Your task to perform on an android device: Go to Android settings Image 0: 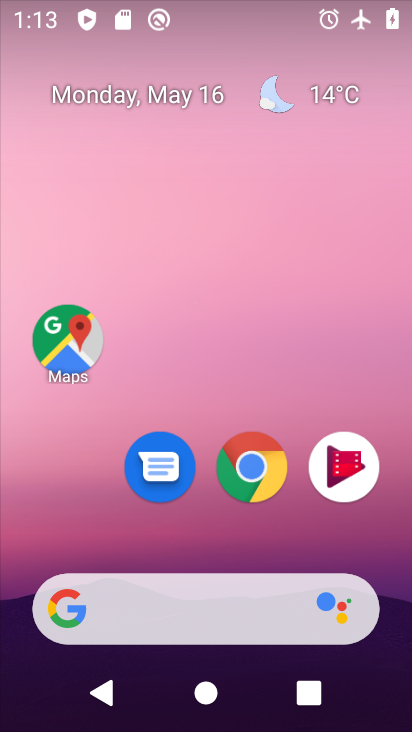
Step 0: drag from (201, 535) to (224, 193)
Your task to perform on an android device: Go to Android settings Image 1: 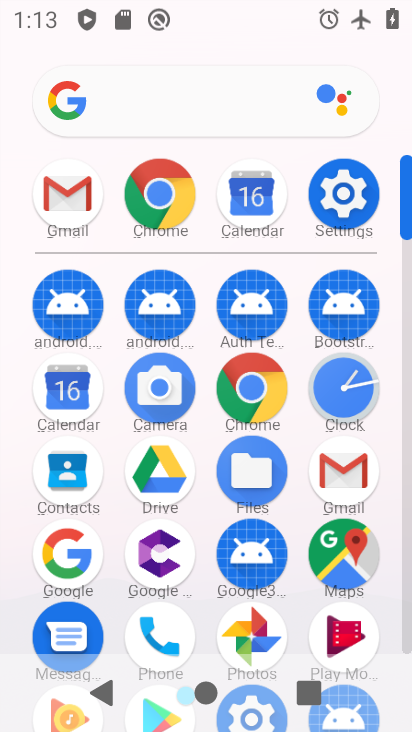
Step 1: click (332, 175)
Your task to perform on an android device: Go to Android settings Image 2: 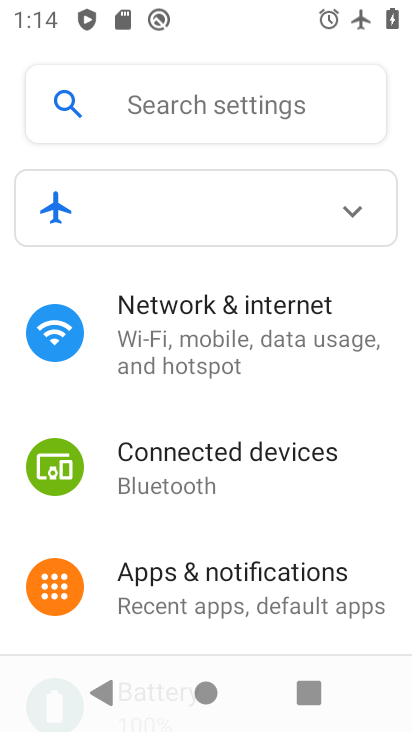
Step 2: task complete